Your task to perform on an android device: move an email to a new category in the gmail app Image 0: 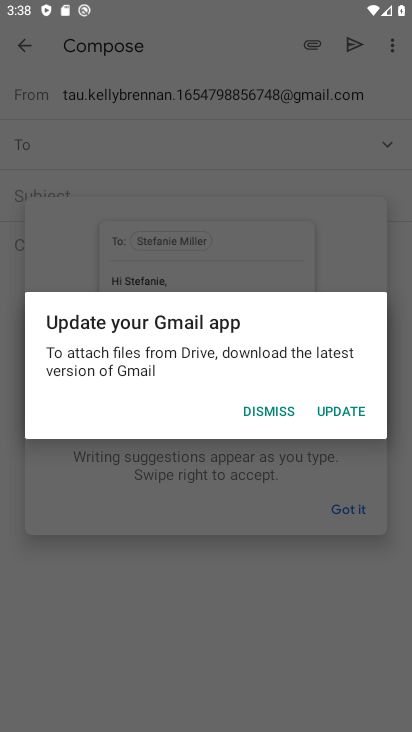
Step 0: press home button
Your task to perform on an android device: move an email to a new category in the gmail app Image 1: 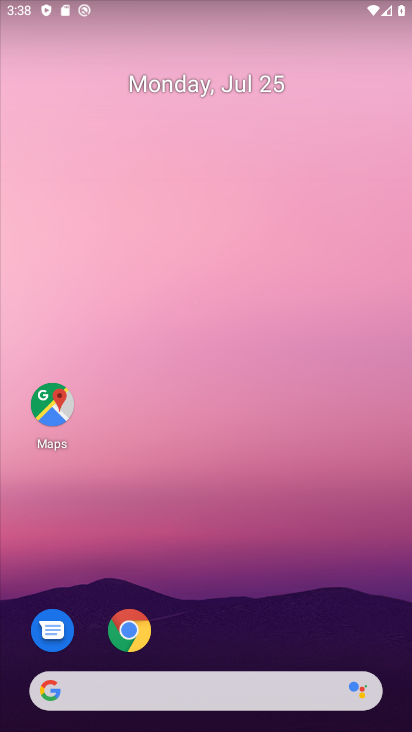
Step 1: drag from (236, 627) to (234, 124)
Your task to perform on an android device: move an email to a new category in the gmail app Image 2: 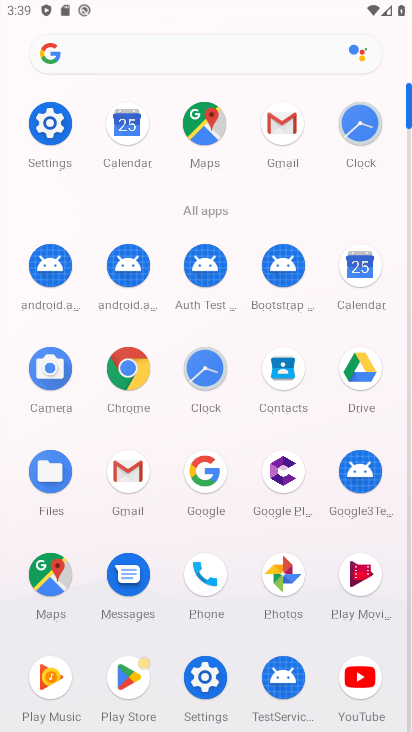
Step 2: click (294, 124)
Your task to perform on an android device: move an email to a new category in the gmail app Image 3: 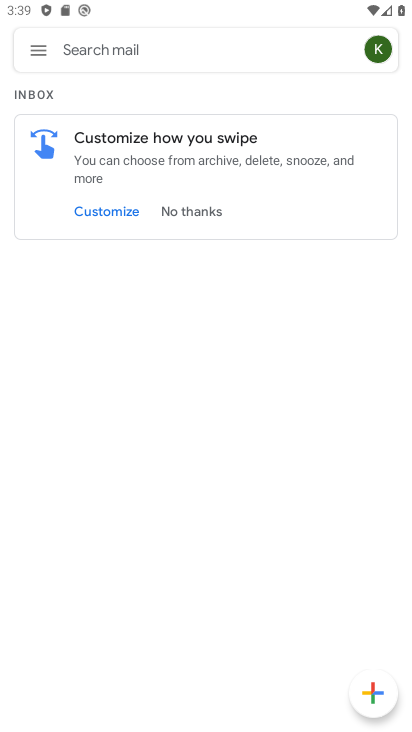
Step 3: click (35, 49)
Your task to perform on an android device: move an email to a new category in the gmail app Image 4: 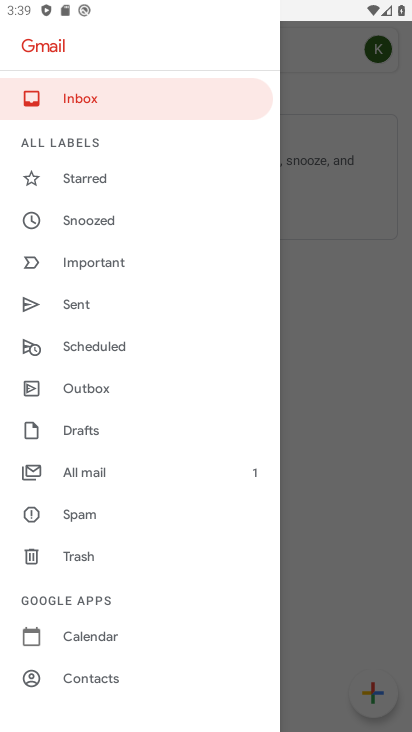
Step 4: click (127, 477)
Your task to perform on an android device: move an email to a new category in the gmail app Image 5: 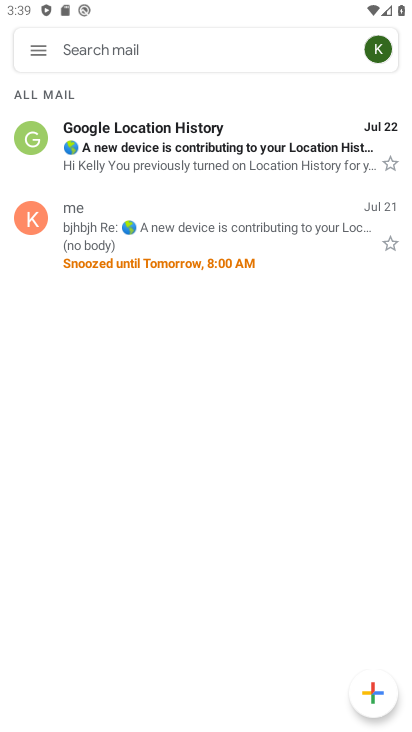
Step 5: click (327, 240)
Your task to perform on an android device: move an email to a new category in the gmail app Image 6: 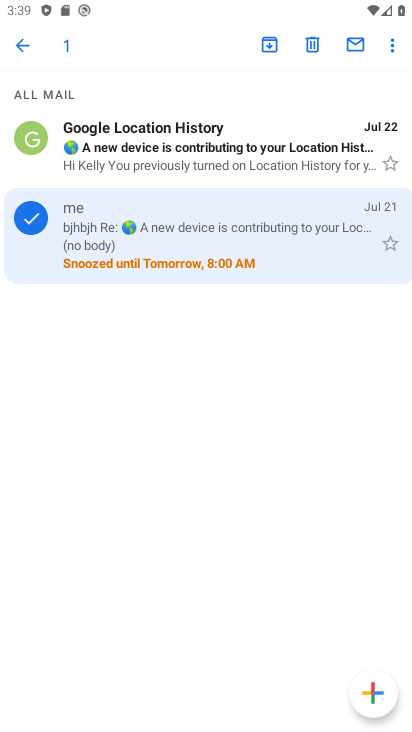
Step 6: click (388, 56)
Your task to perform on an android device: move an email to a new category in the gmail app Image 7: 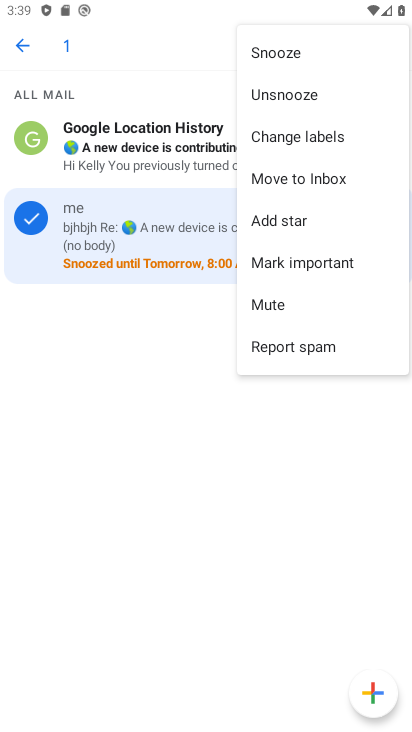
Step 7: click (348, 180)
Your task to perform on an android device: move an email to a new category in the gmail app Image 8: 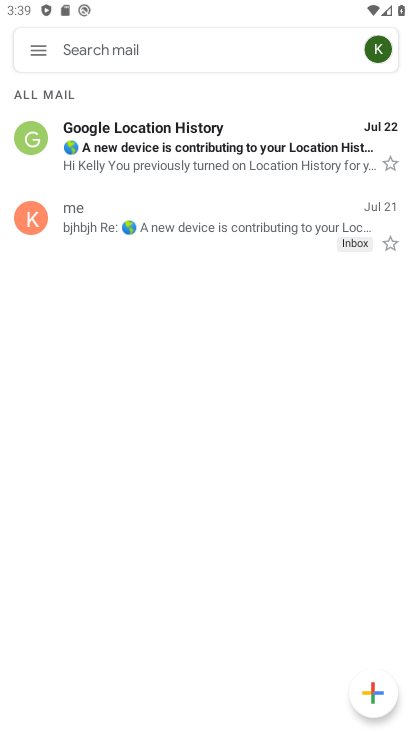
Step 8: task complete